Your task to perform on an android device: remove spam from my inbox in the gmail app Image 0: 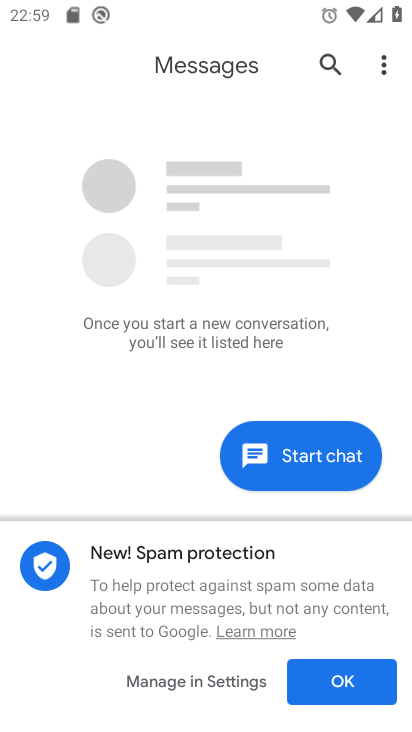
Step 0: press home button
Your task to perform on an android device: remove spam from my inbox in the gmail app Image 1: 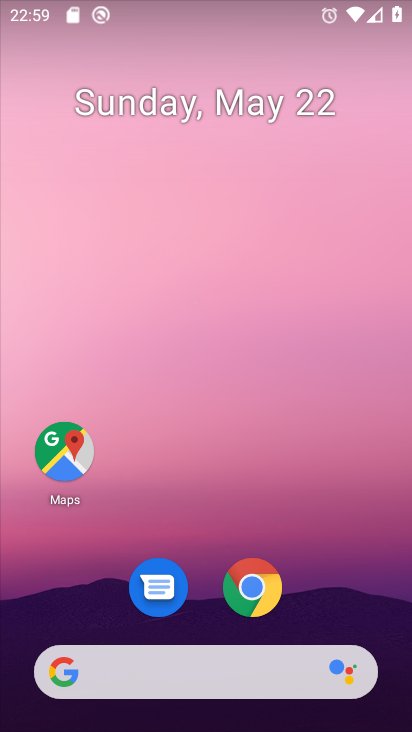
Step 1: drag from (176, 503) to (203, 34)
Your task to perform on an android device: remove spam from my inbox in the gmail app Image 2: 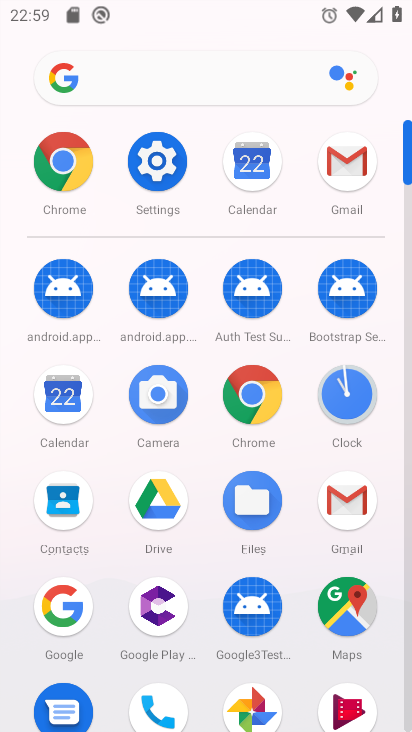
Step 2: click (359, 156)
Your task to perform on an android device: remove spam from my inbox in the gmail app Image 3: 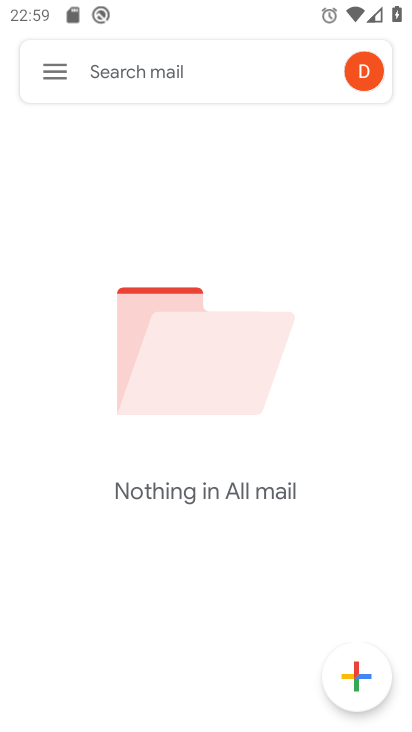
Step 3: click (51, 68)
Your task to perform on an android device: remove spam from my inbox in the gmail app Image 4: 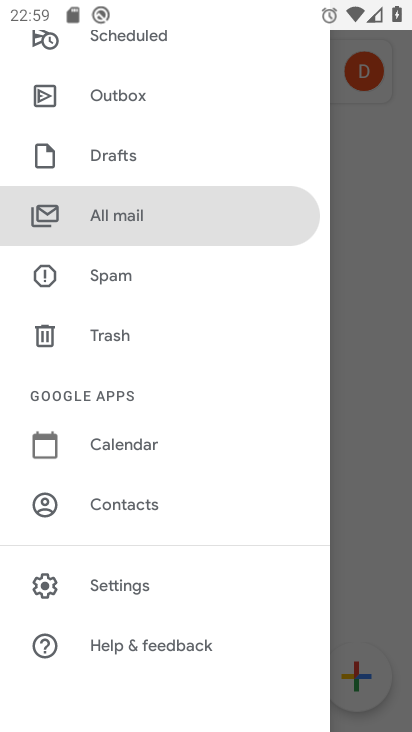
Step 4: click (100, 270)
Your task to perform on an android device: remove spam from my inbox in the gmail app Image 5: 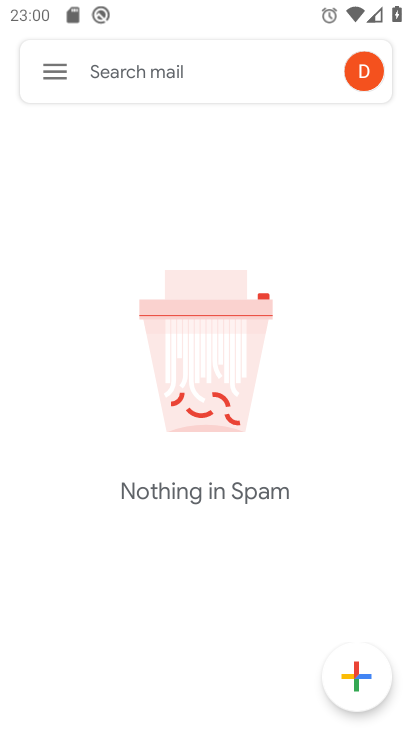
Step 5: task complete